Your task to perform on an android device: Open the Play Movies app and select the watchlist tab. Image 0: 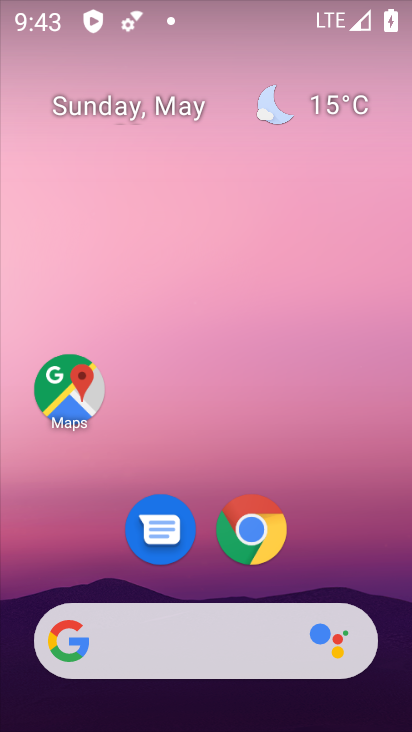
Step 0: drag from (271, 617) to (324, 0)
Your task to perform on an android device: Open the Play Movies app and select the watchlist tab. Image 1: 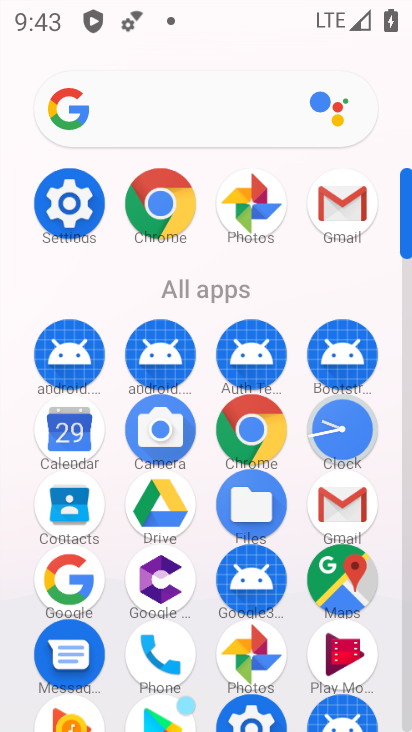
Step 1: click (354, 648)
Your task to perform on an android device: Open the Play Movies app and select the watchlist tab. Image 2: 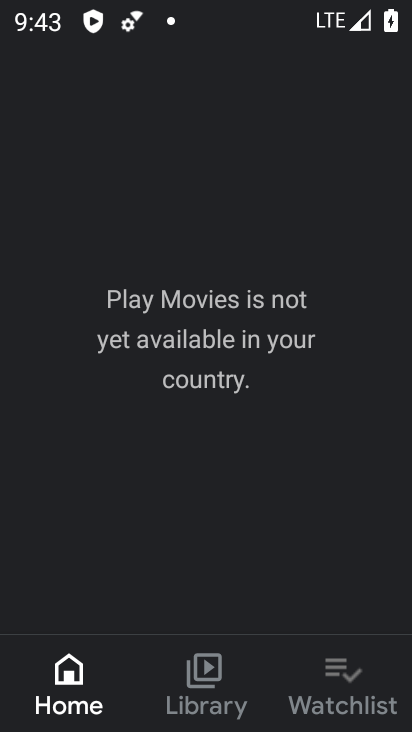
Step 2: click (354, 696)
Your task to perform on an android device: Open the Play Movies app and select the watchlist tab. Image 3: 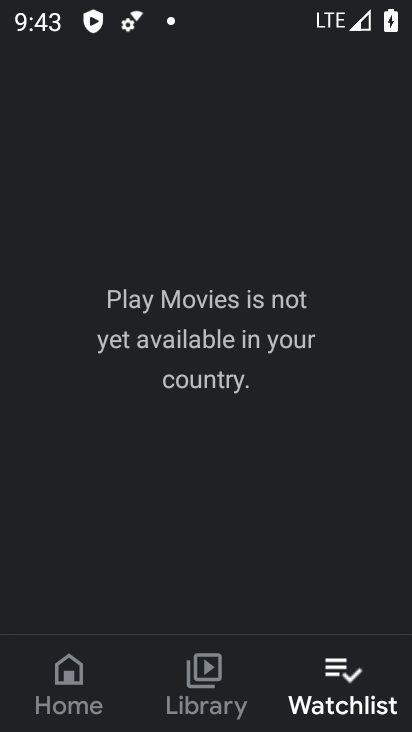
Step 3: task complete